Your task to perform on an android device: Open maps Image 0: 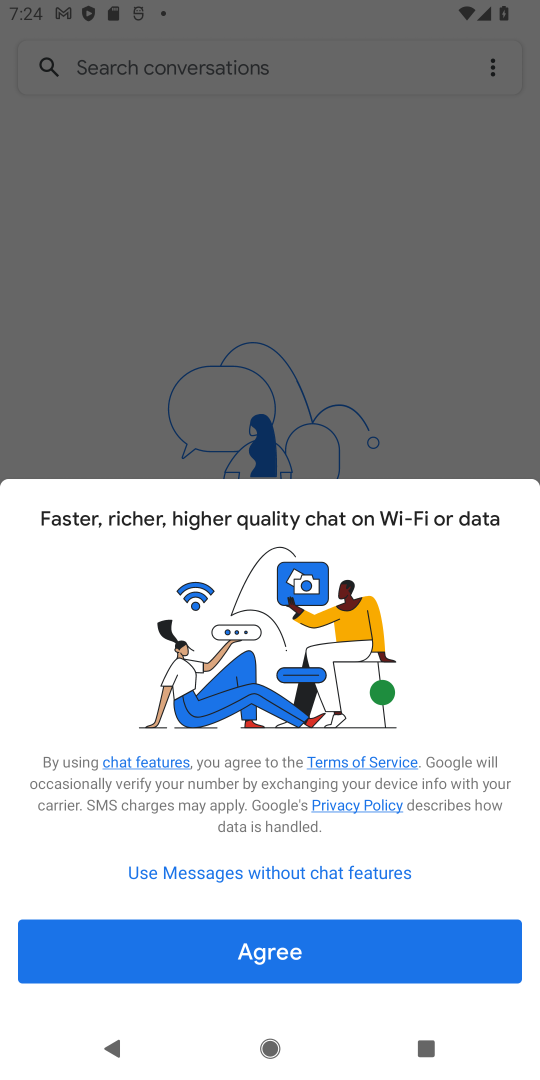
Step 0: press home button
Your task to perform on an android device: Open maps Image 1: 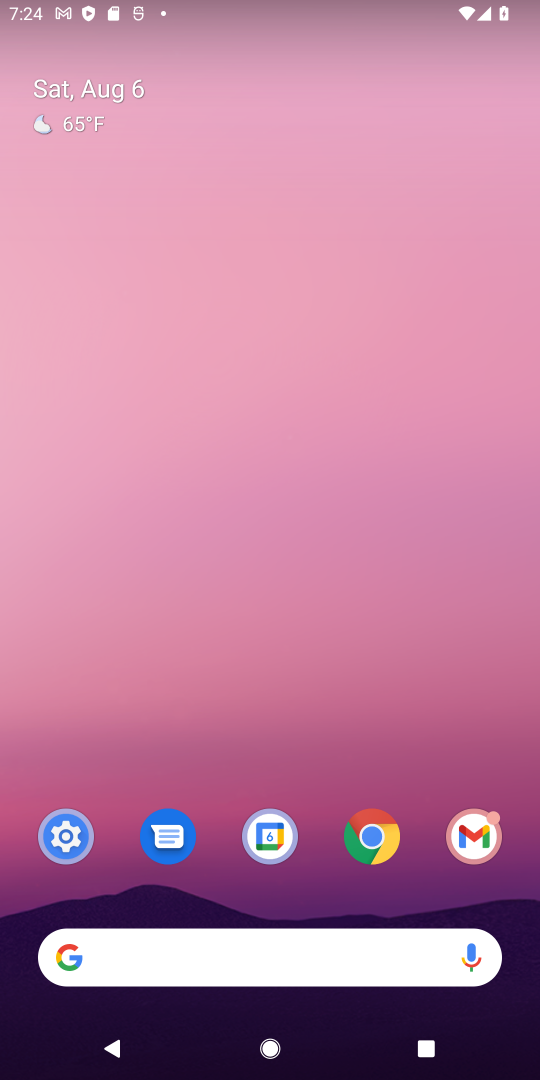
Step 1: drag from (420, 903) to (183, 20)
Your task to perform on an android device: Open maps Image 2: 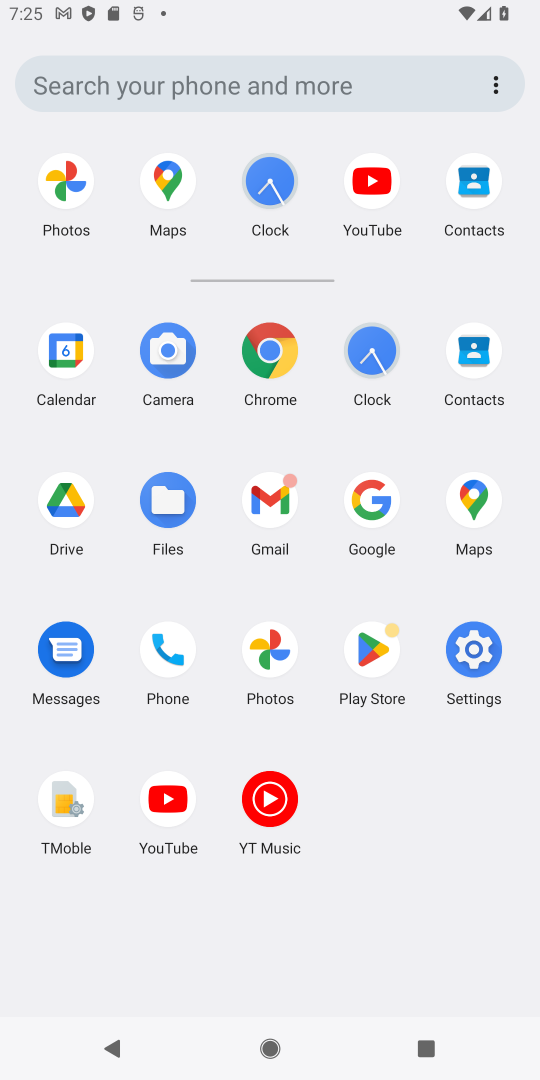
Step 2: click (489, 509)
Your task to perform on an android device: Open maps Image 3: 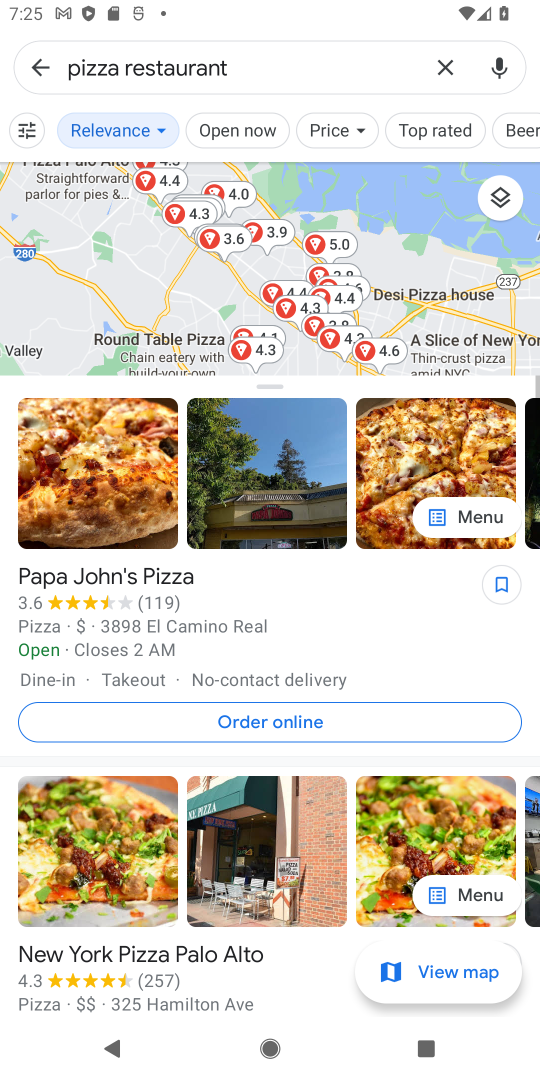
Step 3: click (446, 74)
Your task to perform on an android device: Open maps Image 4: 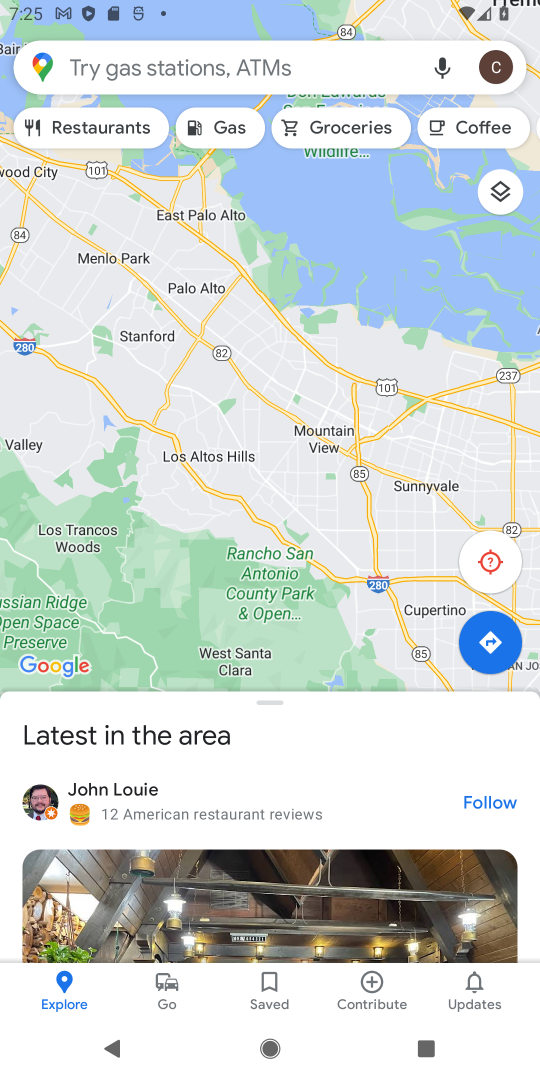
Step 4: task complete